Your task to perform on an android device: check storage Image 0: 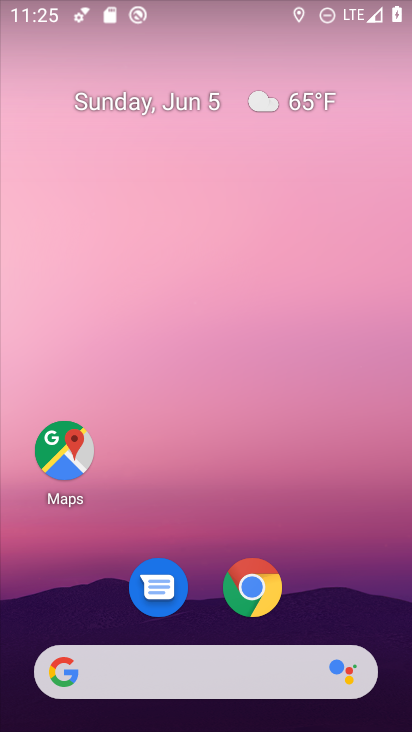
Step 0: drag from (250, 13) to (251, 498)
Your task to perform on an android device: check storage Image 1: 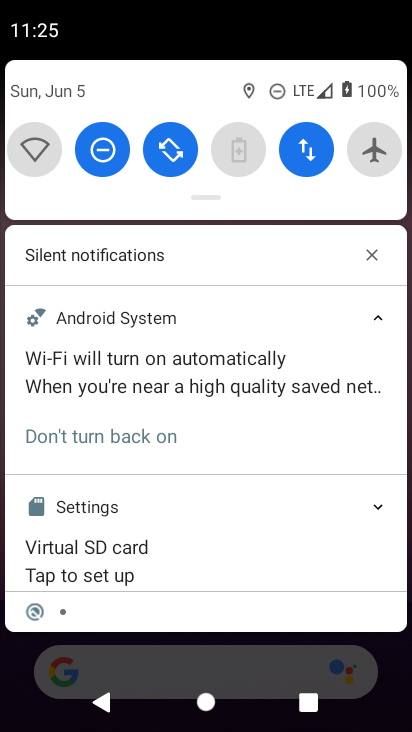
Step 1: click (233, 159)
Your task to perform on an android device: check storage Image 2: 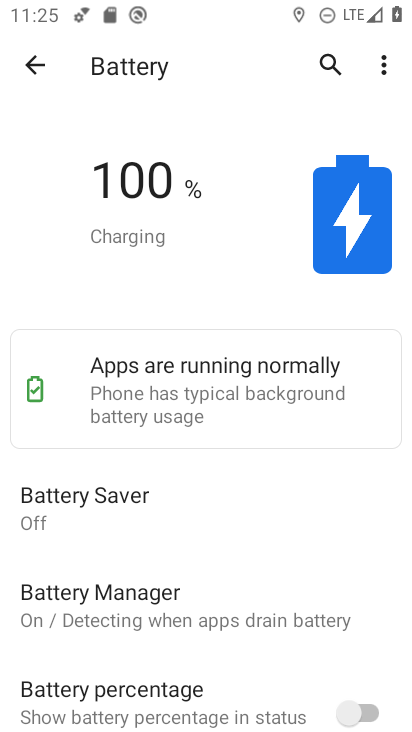
Step 2: task complete